Your task to perform on an android device: Empty the shopping cart on costco. Add "usb-c to usb-a" to the cart on costco Image 0: 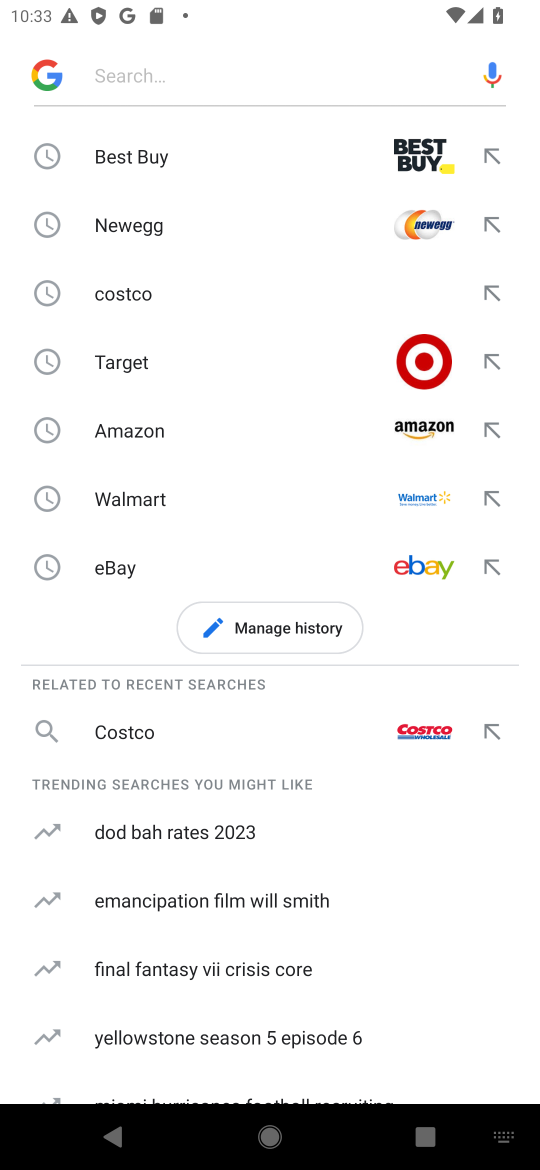
Step 0: click (230, 285)
Your task to perform on an android device: Empty the shopping cart on costco. Add "usb-c to usb-a" to the cart on costco Image 1: 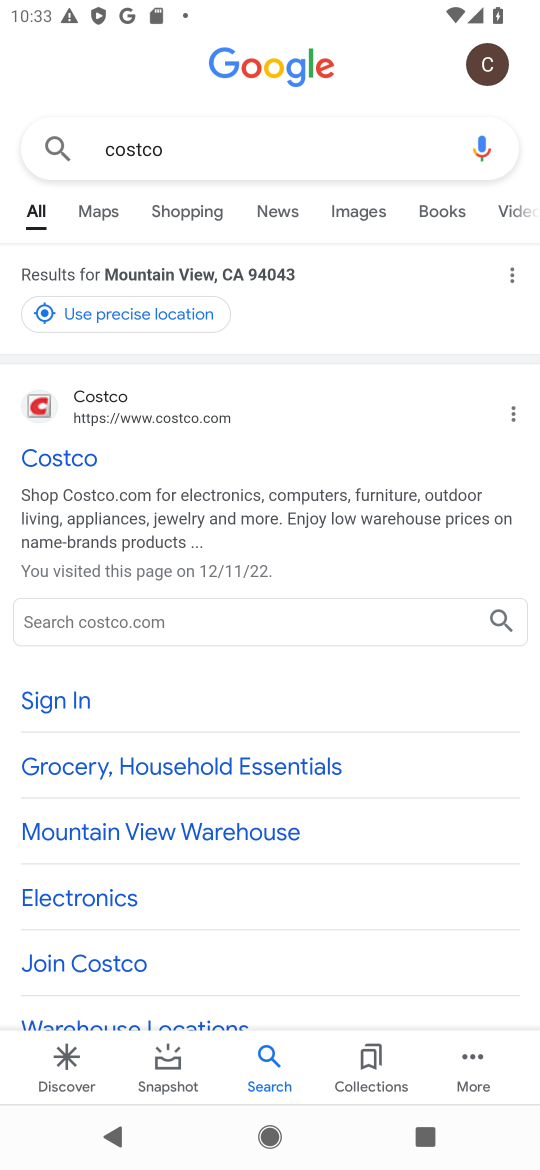
Step 1: click (99, 450)
Your task to perform on an android device: Empty the shopping cart on costco. Add "usb-c to usb-a" to the cart on costco Image 2: 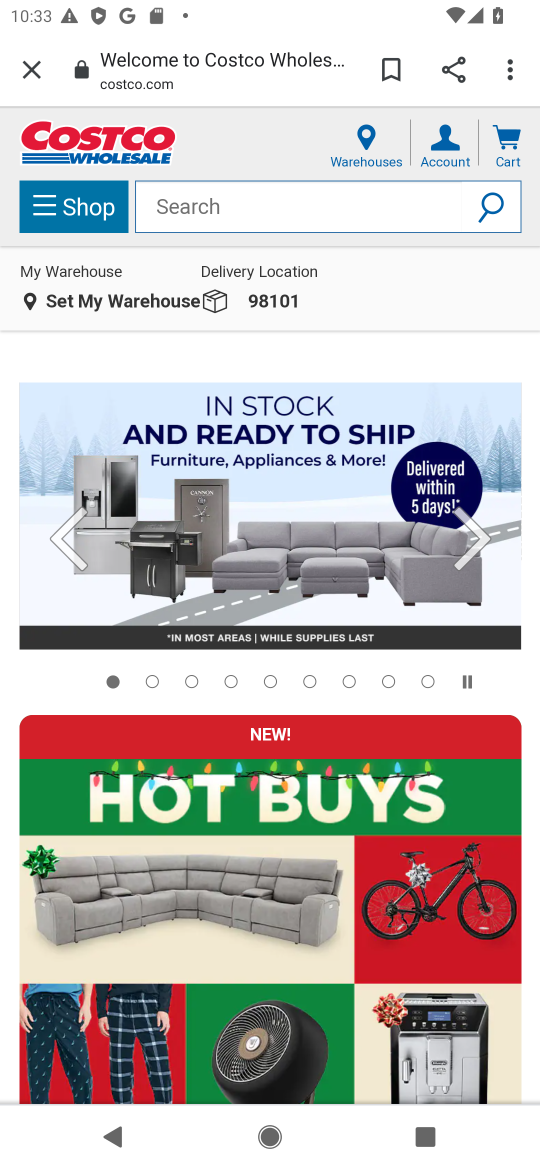
Step 2: click (260, 212)
Your task to perform on an android device: Empty the shopping cart on costco. Add "usb-c to usb-a" to the cart on costco Image 3: 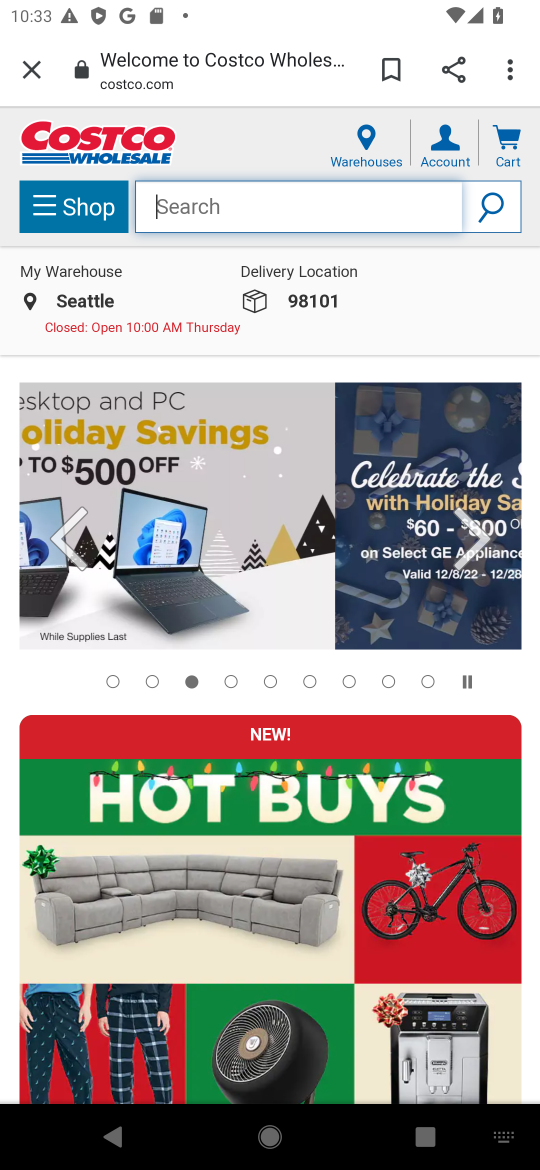
Step 3: type "usb-c to usb-a"
Your task to perform on an android device: Empty the shopping cart on costco. Add "usb-c to usb-a" to the cart on costco Image 4: 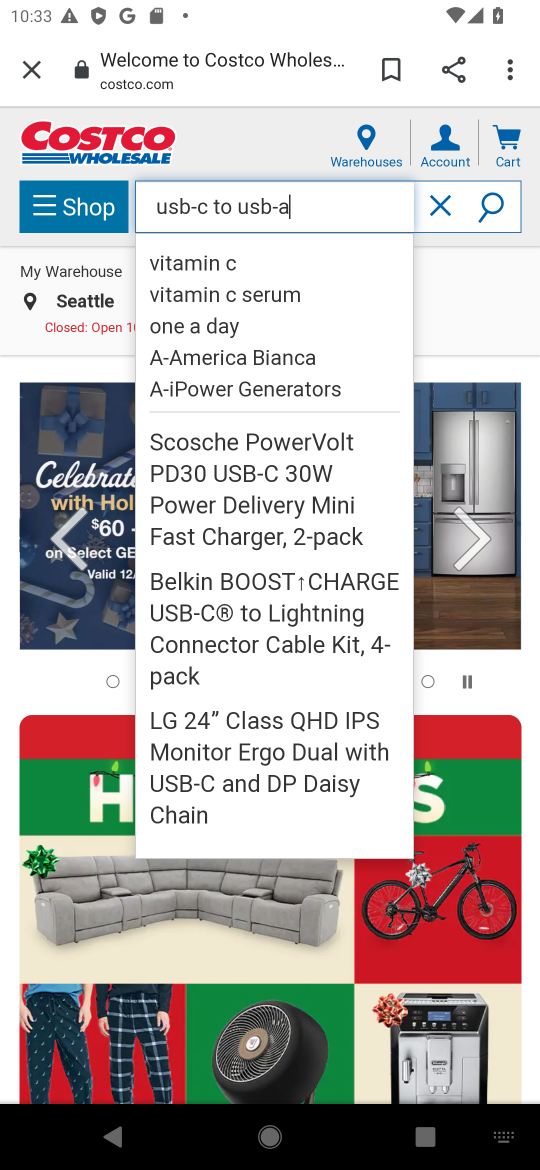
Step 4: click (491, 211)
Your task to perform on an android device: Empty the shopping cart on costco. Add "usb-c to usb-a" to the cart on costco Image 5: 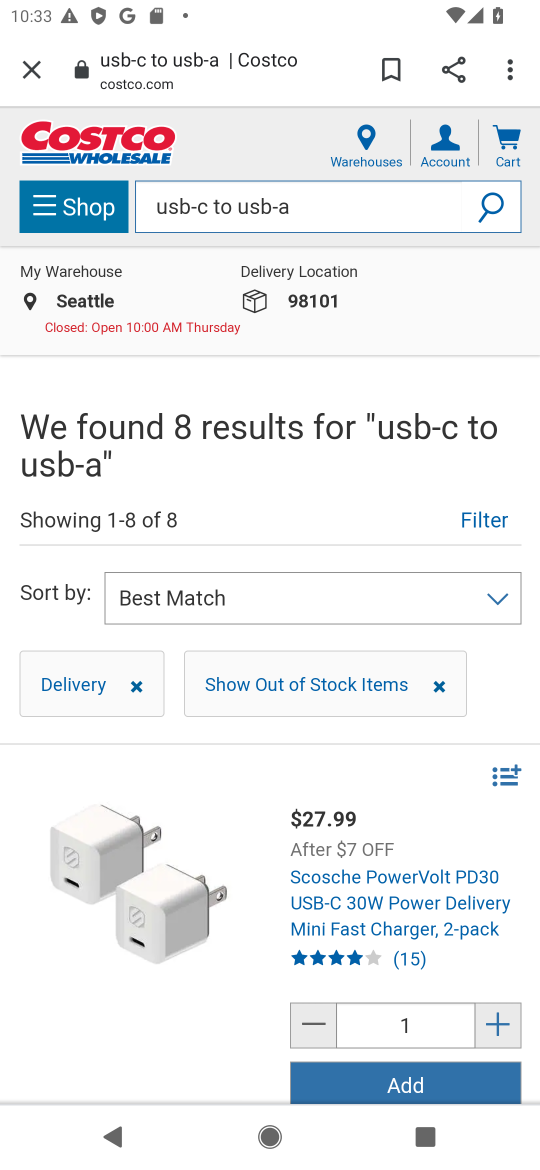
Step 5: click (345, 1064)
Your task to perform on an android device: Empty the shopping cart on costco. Add "usb-c to usb-a" to the cart on costco Image 6: 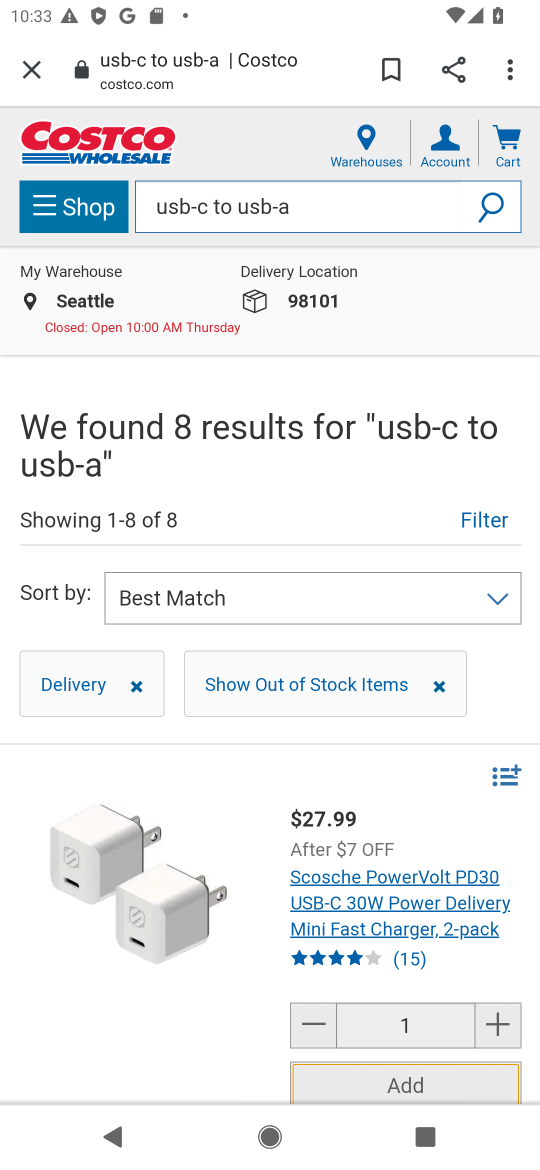
Step 6: task complete